Your task to perform on an android device: Go to Wikipedia Image 0: 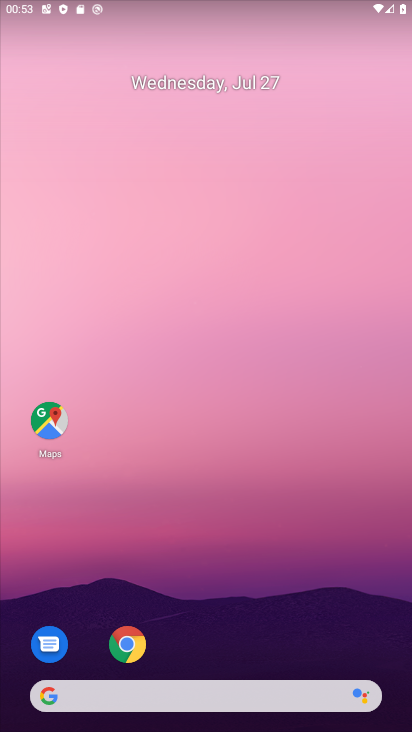
Step 0: drag from (241, 298) to (240, 180)
Your task to perform on an android device: Go to Wikipedia Image 1: 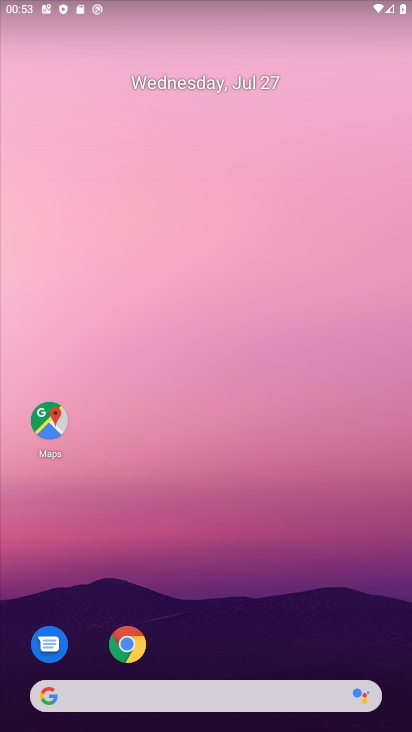
Step 1: drag from (201, 268) to (183, 18)
Your task to perform on an android device: Go to Wikipedia Image 2: 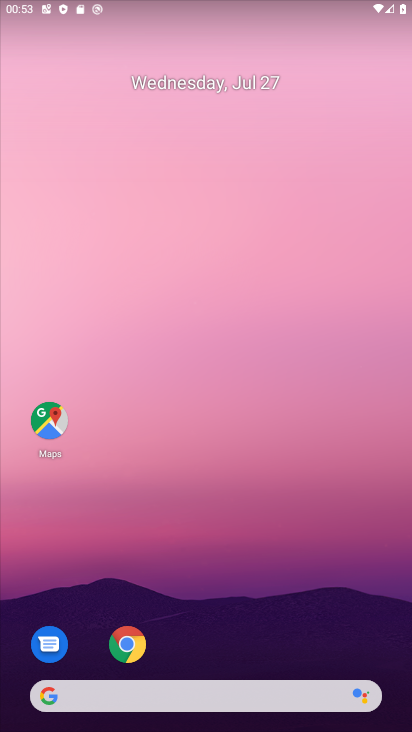
Step 2: drag from (170, 425) to (89, 48)
Your task to perform on an android device: Go to Wikipedia Image 3: 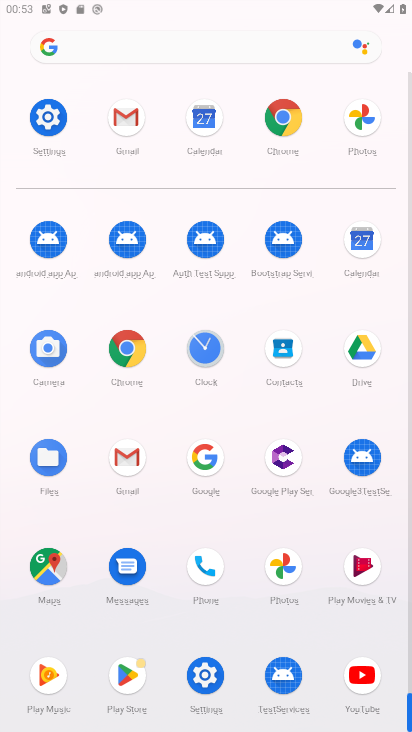
Step 3: drag from (170, 556) to (121, 170)
Your task to perform on an android device: Go to Wikipedia Image 4: 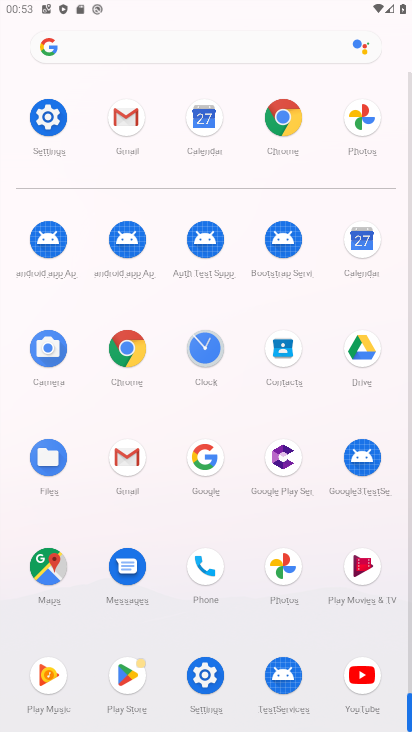
Step 4: click (289, 110)
Your task to perform on an android device: Go to Wikipedia Image 5: 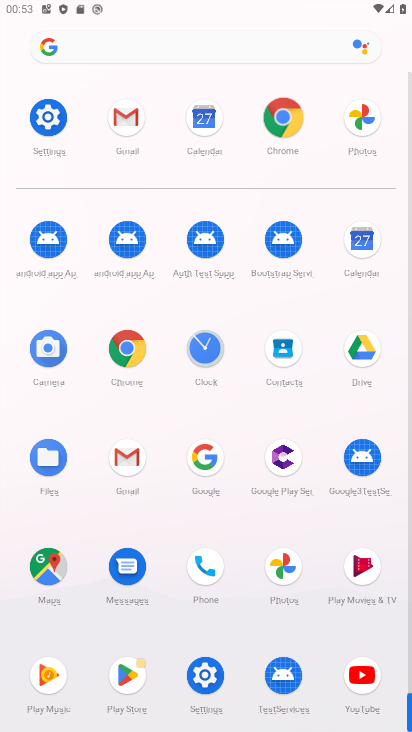
Step 5: click (285, 120)
Your task to perform on an android device: Go to Wikipedia Image 6: 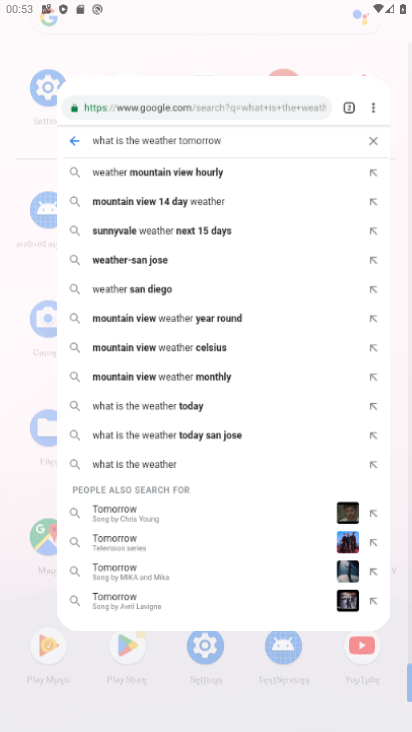
Step 6: click (285, 120)
Your task to perform on an android device: Go to Wikipedia Image 7: 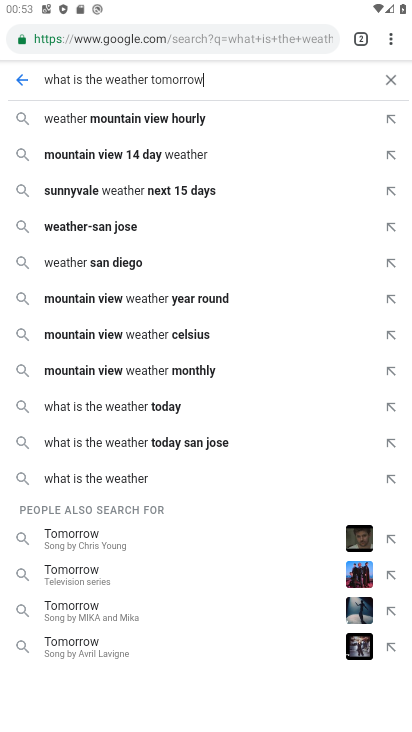
Step 7: drag from (378, 38) to (245, 72)
Your task to perform on an android device: Go to Wikipedia Image 8: 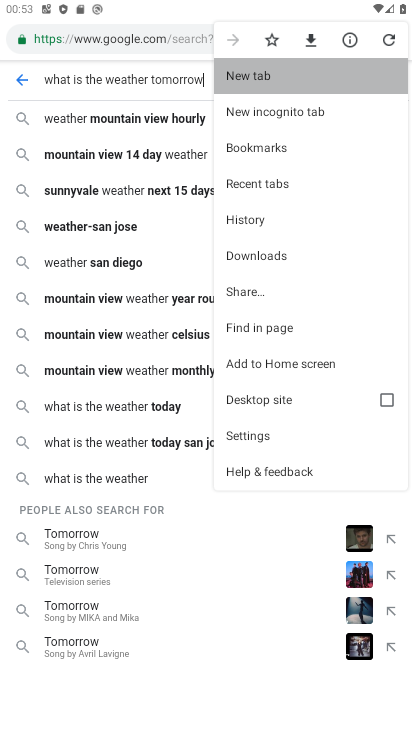
Step 8: click (247, 68)
Your task to perform on an android device: Go to Wikipedia Image 9: 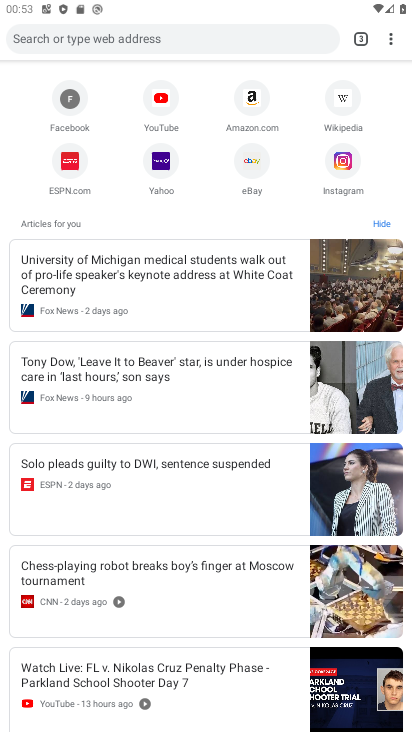
Step 9: click (335, 107)
Your task to perform on an android device: Go to Wikipedia Image 10: 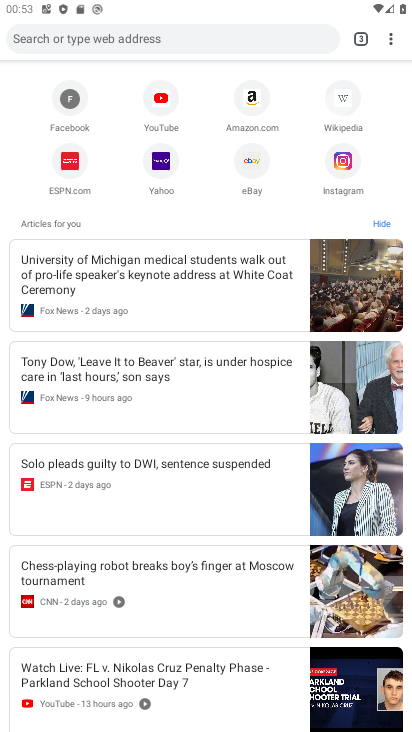
Step 10: click (336, 107)
Your task to perform on an android device: Go to Wikipedia Image 11: 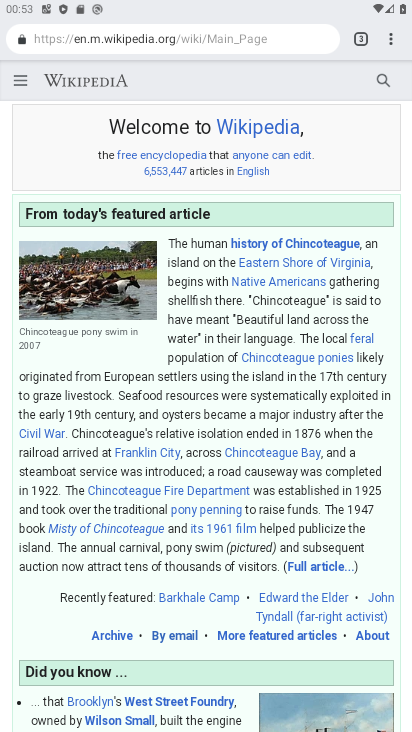
Step 11: task complete